Your task to perform on an android device: Open calendar and show me the second week of next month Image 0: 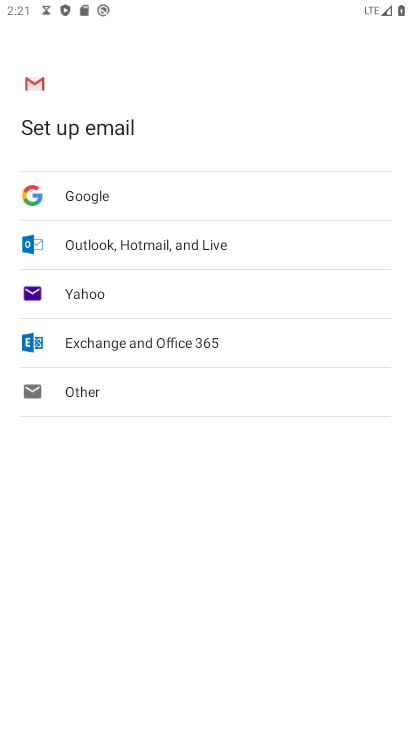
Step 0: press home button
Your task to perform on an android device: Open calendar and show me the second week of next month Image 1: 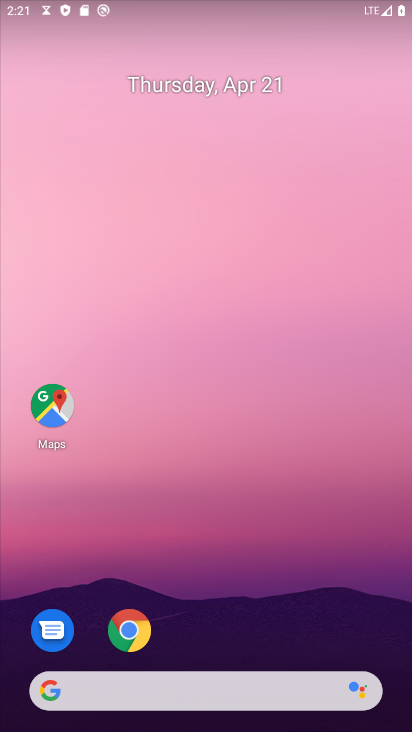
Step 1: drag from (357, 647) to (302, 23)
Your task to perform on an android device: Open calendar and show me the second week of next month Image 2: 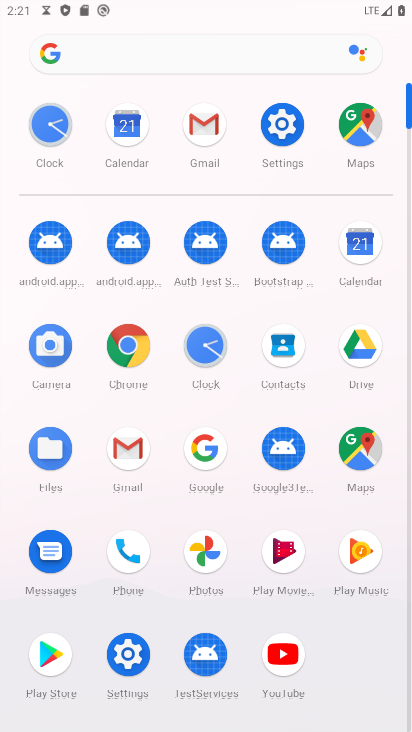
Step 2: click (360, 237)
Your task to perform on an android device: Open calendar and show me the second week of next month Image 3: 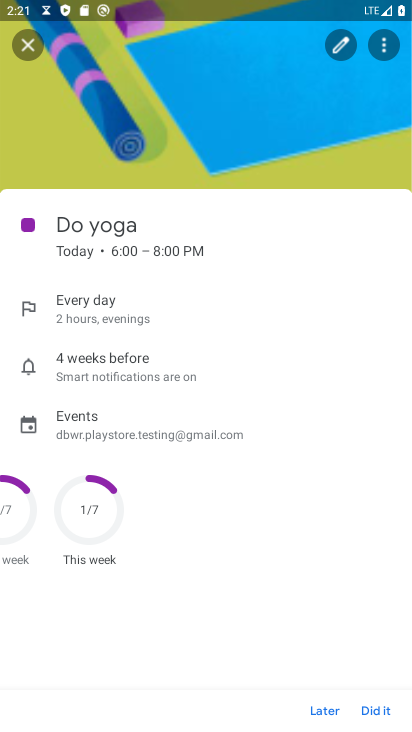
Step 3: click (30, 51)
Your task to perform on an android device: Open calendar and show me the second week of next month Image 4: 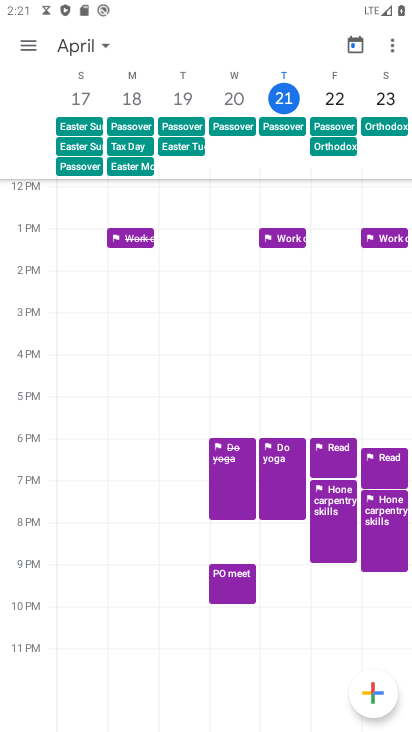
Step 4: click (105, 44)
Your task to perform on an android device: Open calendar and show me the second week of next month Image 5: 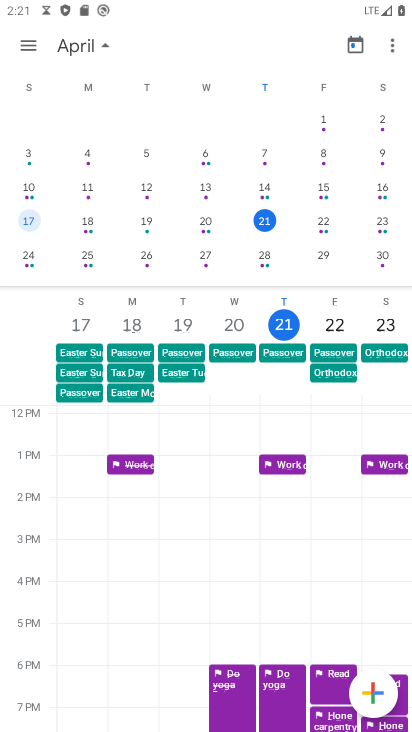
Step 5: task complete